Your task to perform on an android device: add a contact in the contacts app Image 0: 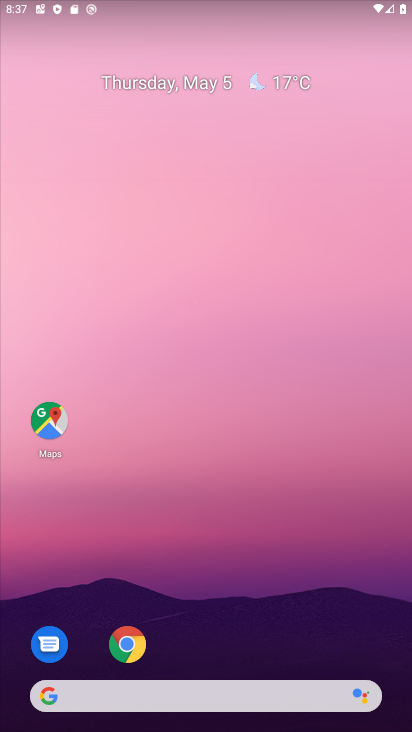
Step 0: drag from (253, 639) to (266, 190)
Your task to perform on an android device: add a contact in the contacts app Image 1: 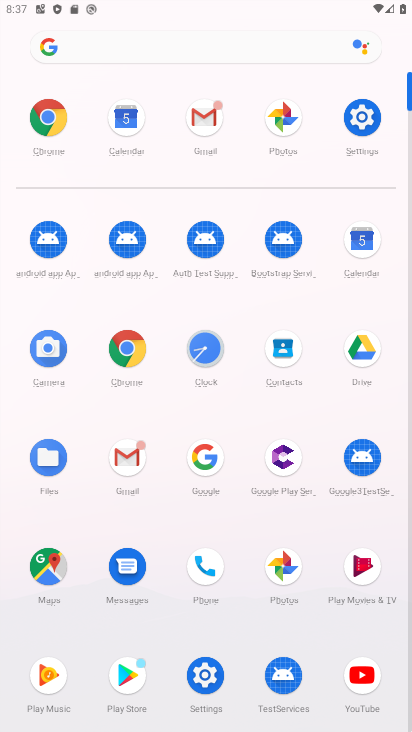
Step 1: click (290, 350)
Your task to perform on an android device: add a contact in the contacts app Image 2: 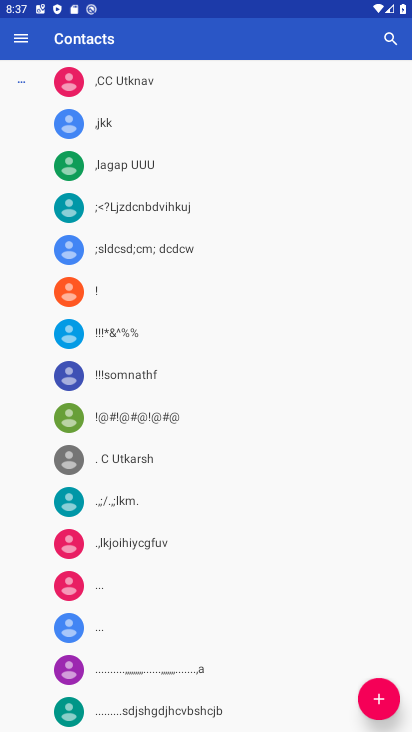
Step 2: click (380, 697)
Your task to perform on an android device: add a contact in the contacts app Image 3: 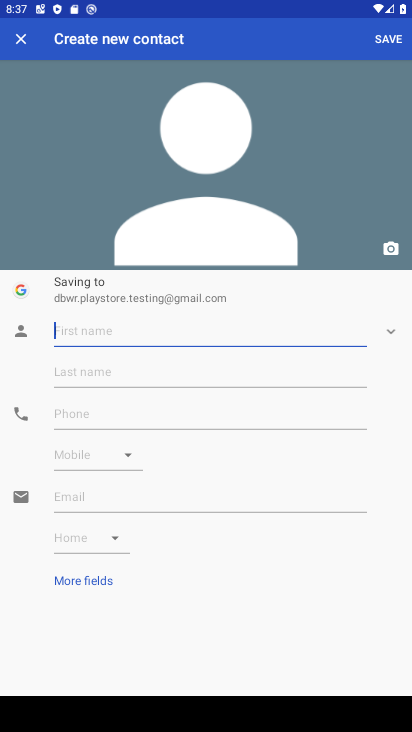
Step 3: click (224, 327)
Your task to perform on an android device: add a contact in the contacts app Image 4: 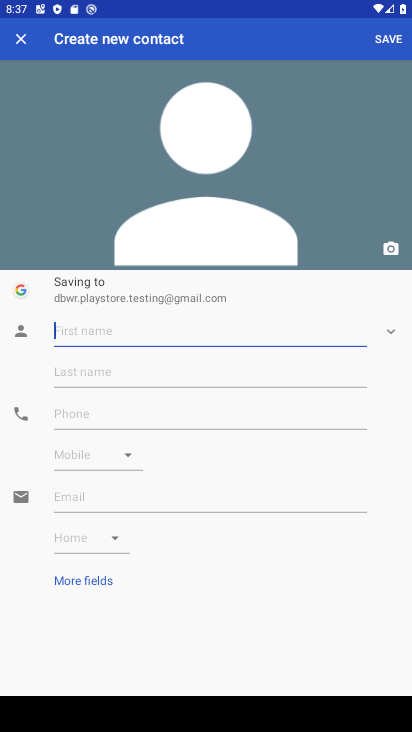
Step 4: type "kkkfjfkjf"
Your task to perform on an android device: add a contact in the contacts app Image 5: 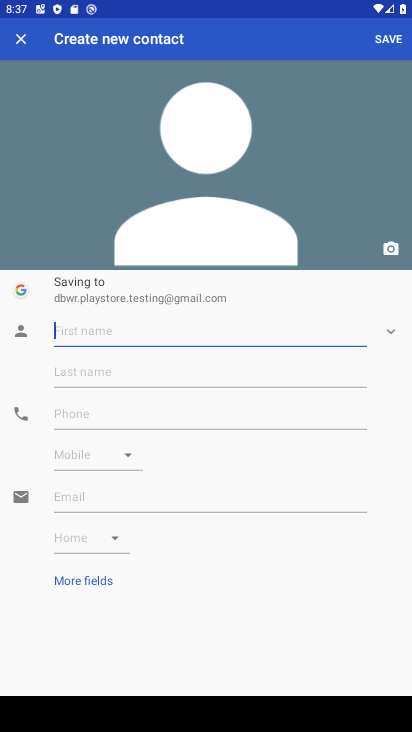
Step 5: click (185, 412)
Your task to perform on an android device: add a contact in the contacts app Image 6: 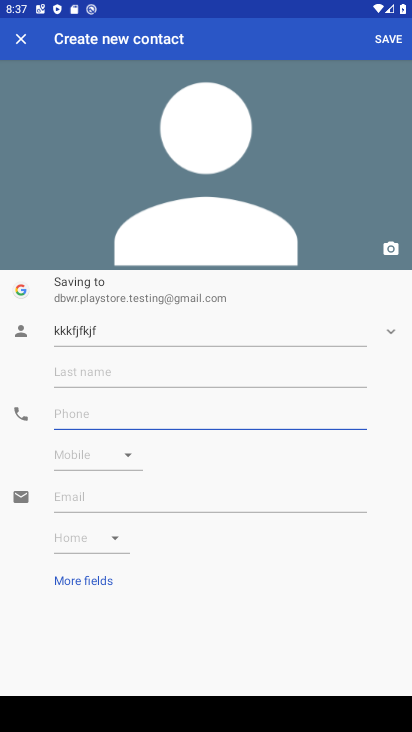
Step 6: type "89798789"
Your task to perform on an android device: add a contact in the contacts app Image 7: 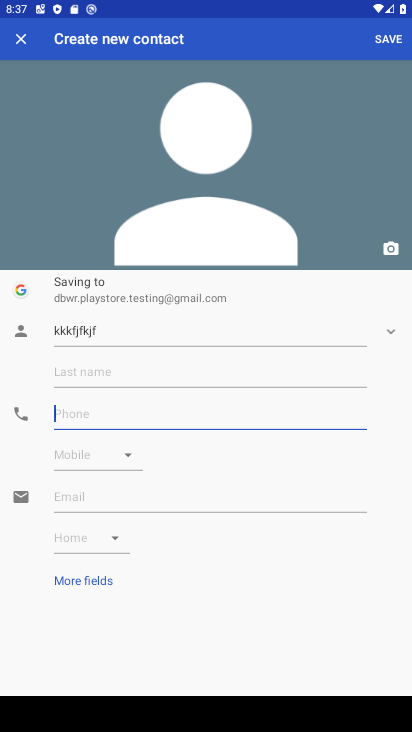
Step 7: click (365, 589)
Your task to perform on an android device: add a contact in the contacts app Image 8: 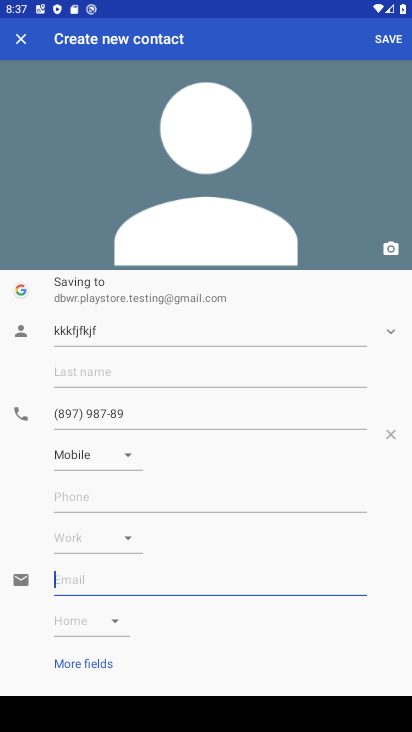
Step 8: click (380, 43)
Your task to perform on an android device: add a contact in the contacts app Image 9: 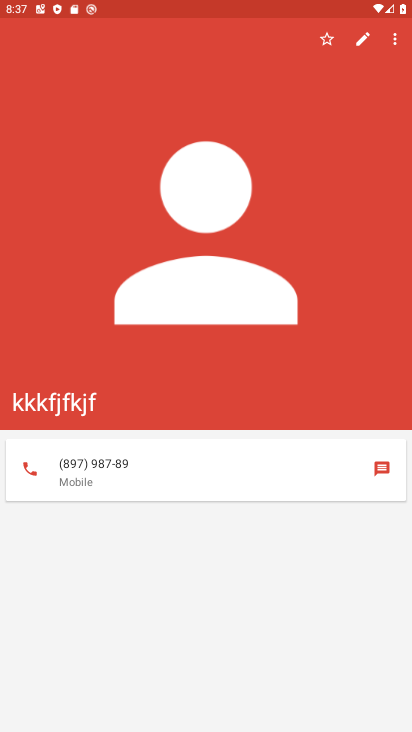
Step 9: task complete